Your task to perform on an android device: check storage Image 0: 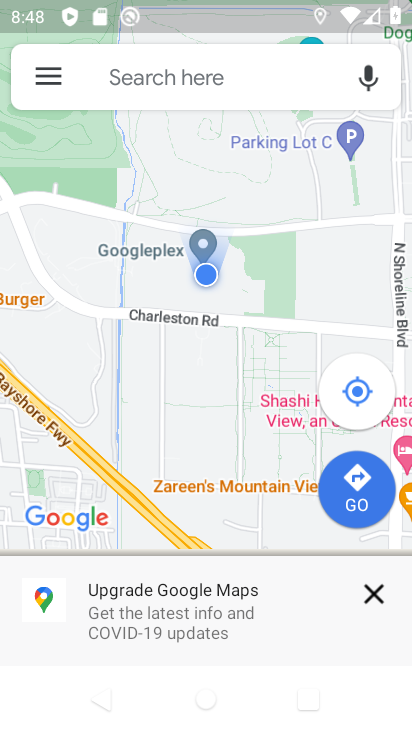
Step 0: press home button
Your task to perform on an android device: check storage Image 1: 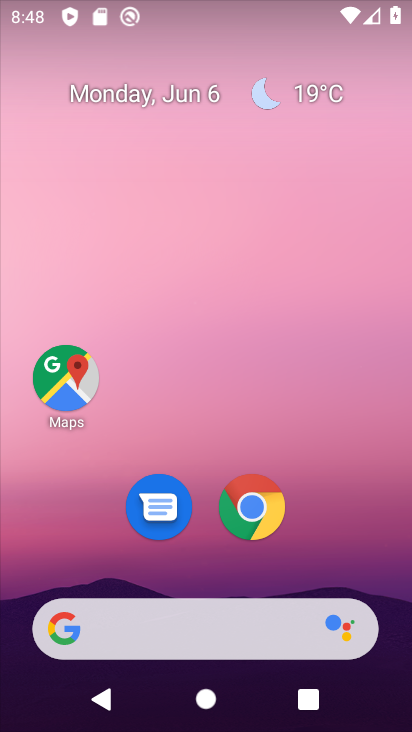
Step 1: drag from (227, 391) to (226, 260)
Your task to perform on an android device: check storage Image 2: 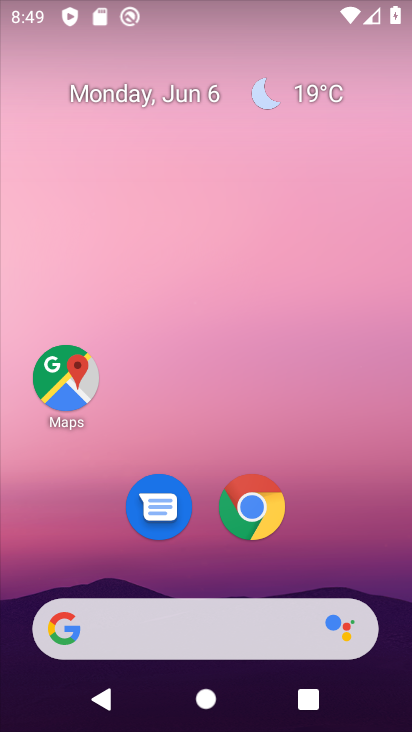
Step 2: drag from (306, 562) to (305, 144)
Your task to perform on an android device: check storage Image 3: 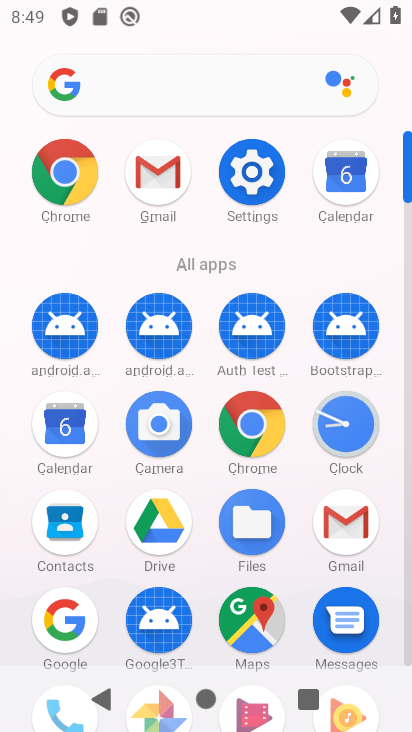
Step 3: click (251, 155)
Your task to perform on an android device: check storage Image 4: 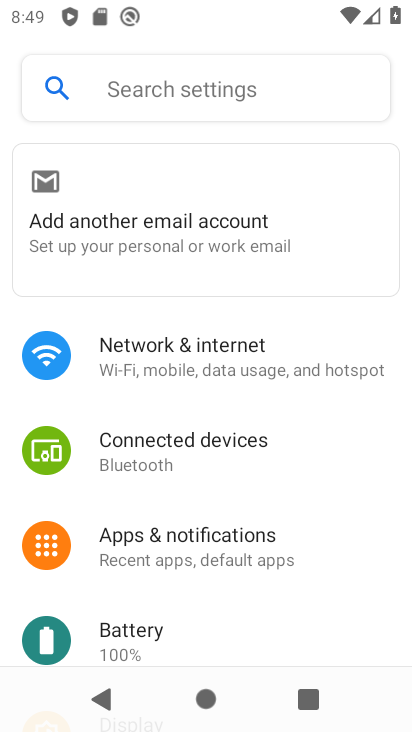
Step 4: drag from (179, 617) to (213, 280)
Your task to perform on an android device: check storage Image 5: 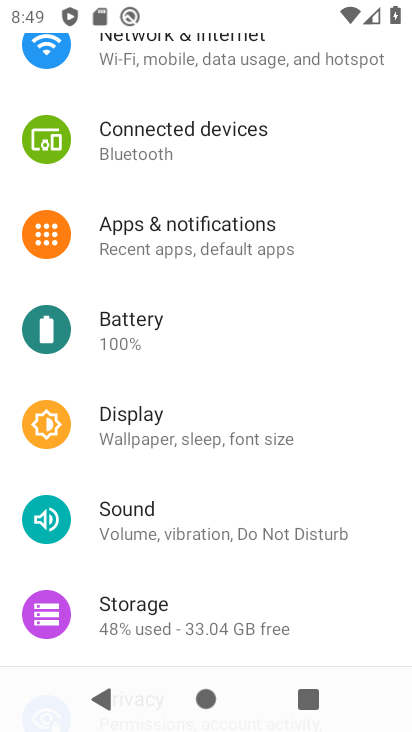
Step 5: click (203, 621)
Your task to perform on an android device: check storage Image 6: 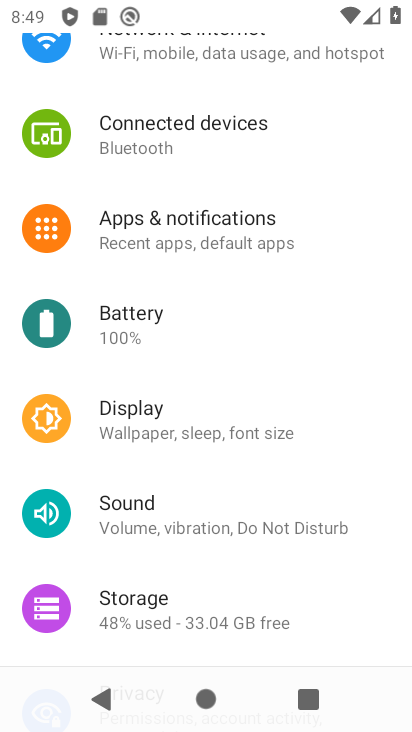
Step 6: task complete